Your task to perform on an android device: Do I have any events tomorrow? Image 0: 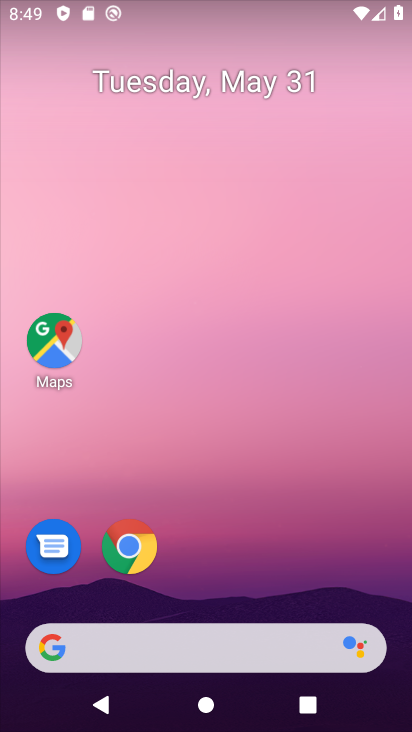
Step 0: drag from (383, 691) to (350, 142)
Your task to perform on an android device: Do I have any events tomorrow? Image 1: 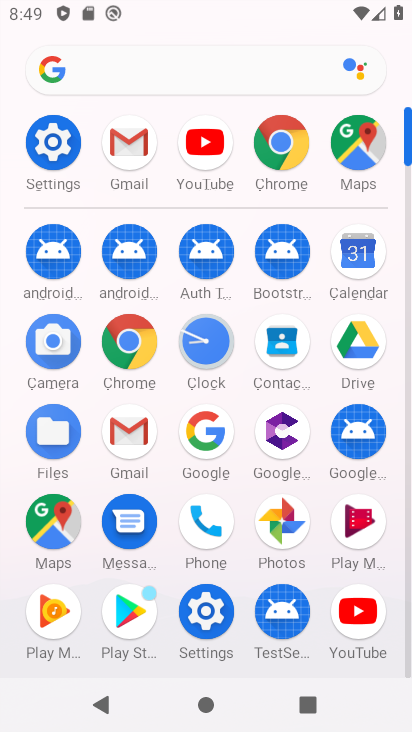
Step 1: click (357, 259)
Your task to perform on an android device: Do I have any events tomorrow? Image 2: 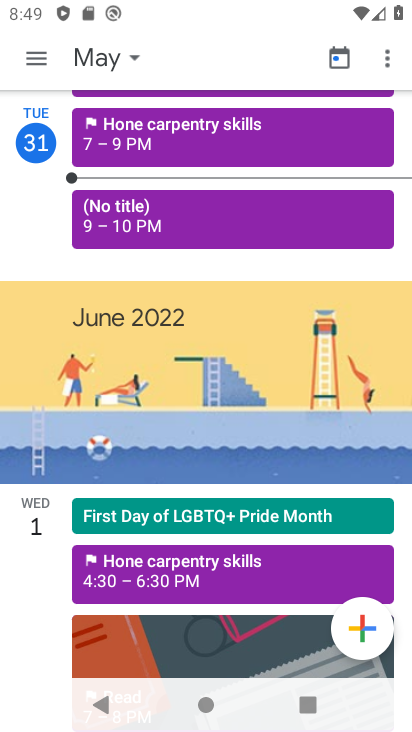
Step 2: click (33, 56)
Your task to perform on an android device: Do I have any events tomorrow? Image 3: 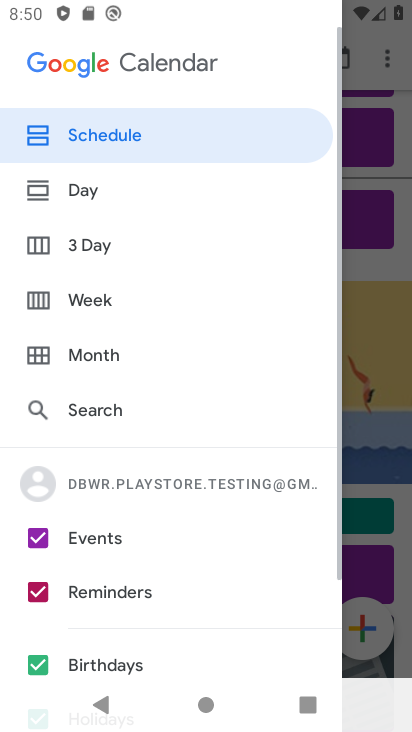
Step 3: click (35, 660)
Your task to perform on an android device: Do I have any events tomorrow? Image 4: 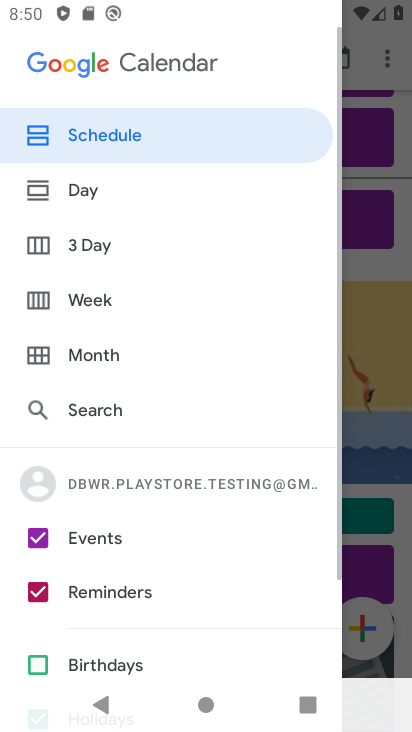
Step 4: click (45, 597)
Your task to perform on an android device: Do I have any events tomorrow? Image 5: 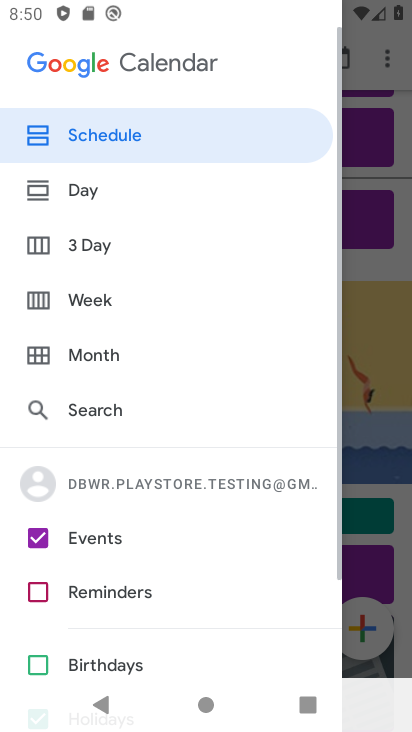
Step 5: drag from (228, 582) to (221, 383)
Your task to perform on an android device: Do I have any events tomorrow? Image 6: 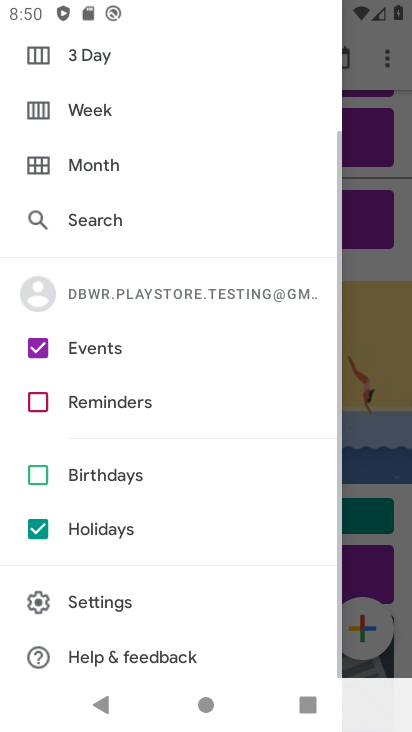
Step 6: click (43, 526)
Your task to perform on an android device: Do I have any events tomorrow? Image 7: 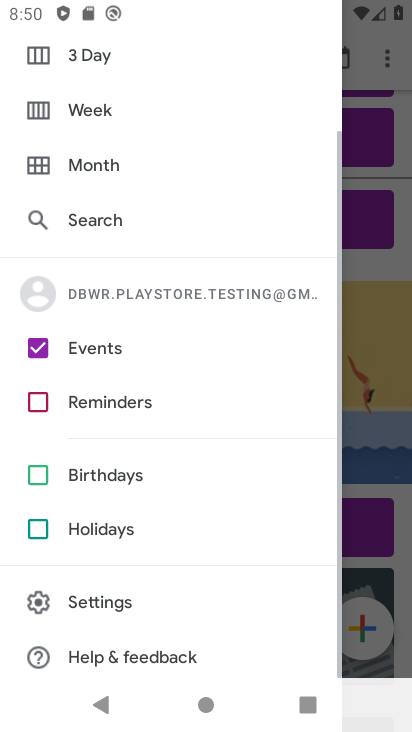
Step 7: drag from (193, 122) to (234, 546)
Your task to perform on an android device: Do I have any events tomorrow? Image 8: 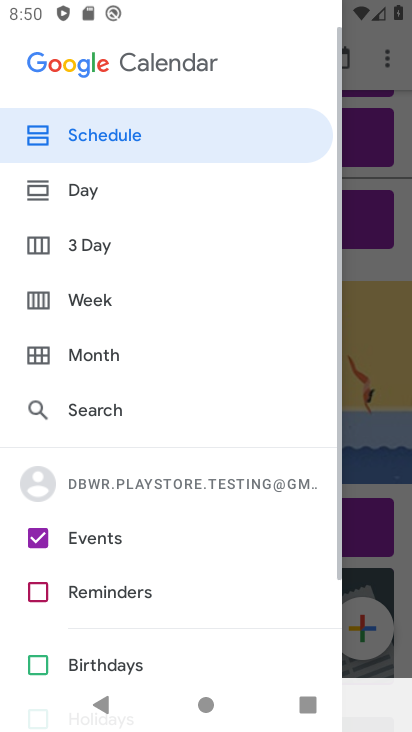
Step 8: click (65, 187)
Your task to perform on an android device: Do I have any events tomorrow? Image 9: 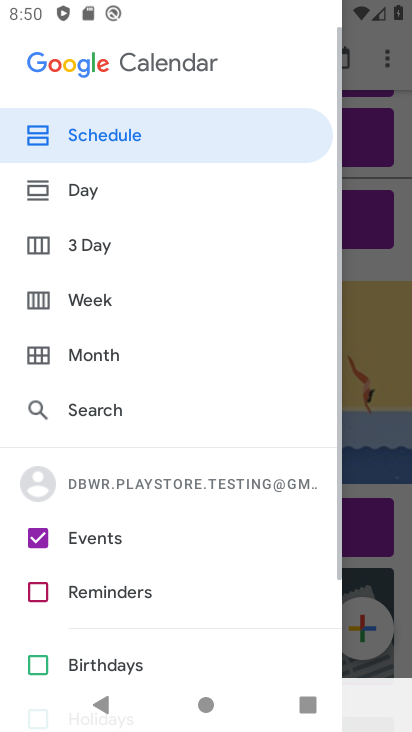
Step 9: click (385, 298)
Your task to perform on an android device: Do I have any events tomorrow? Image 10: 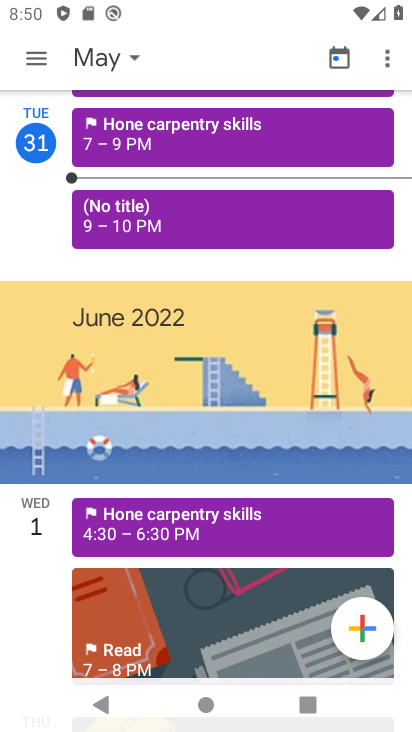
Step 10: click (128, 52)
Your task to perform on an android device: Do I have any events tomorrow? Image 11: 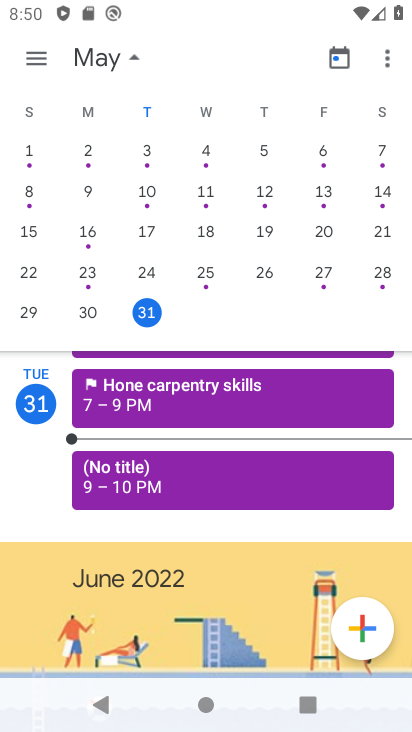
Step 11: drag from (399, 201) to (123, 198)
Your task to perform on an android device: Do I have any events tomorrow? Image 12: 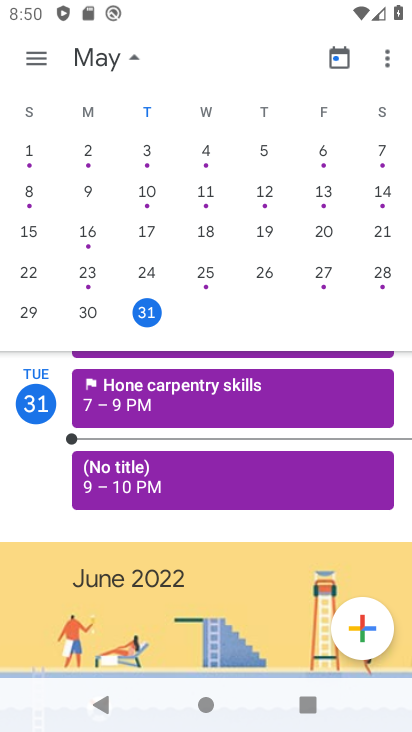
Step 12: drag from (390, 187) to (34, 157)
Your task to perform on an android device: Do I have any events tomorrow? Image 13: 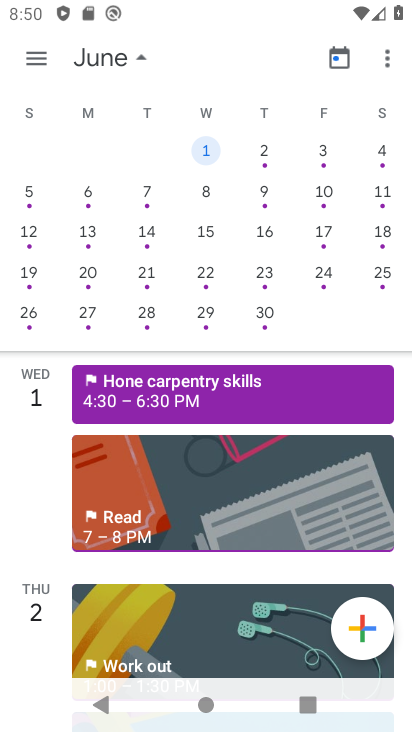
Step 13: click (200, 145)
Your task to perform on an android device: Do I have any events tomorrow? Image 14: 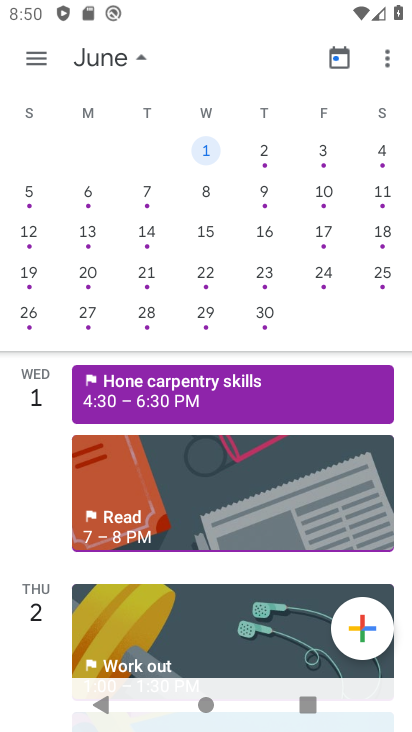
Step 14: click (205, 149)
Your task to perform on an android device: Do I have any events tomorrow? Image 15: 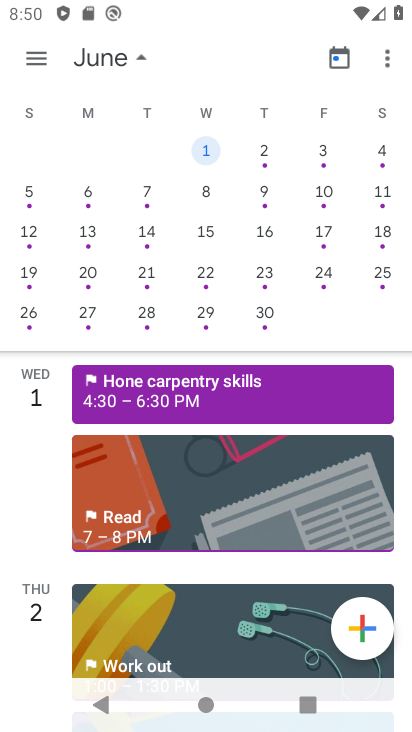
Step 15: click (30, 53)
Your task to perform on an android device: Do I have any events tomorrow? Image 16: 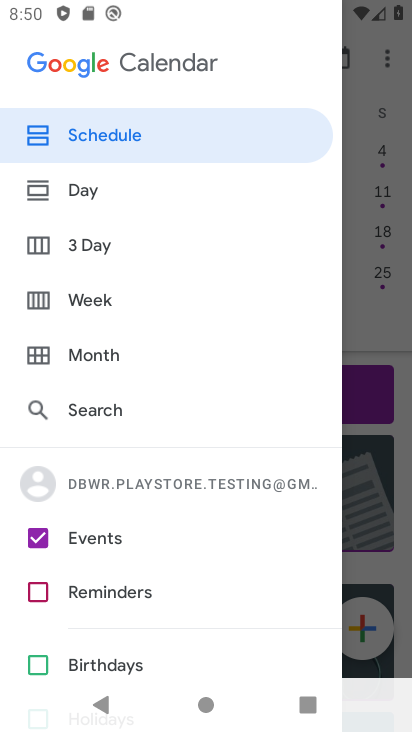
Step 16: click (83, 183)
Your task to perform on an android device: Do I have any events tomorrow? Image 17: 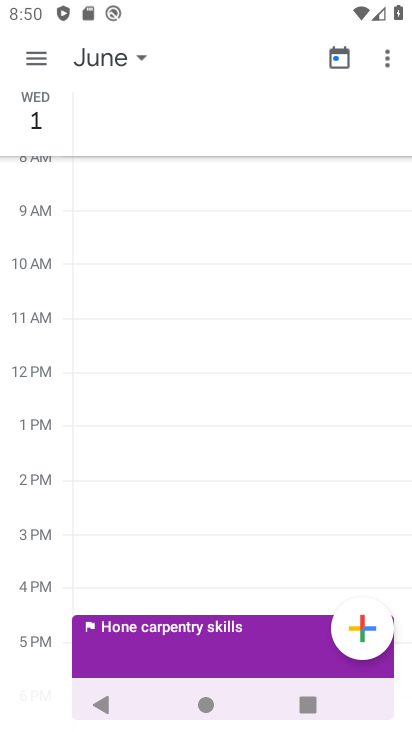
Step 17: click (31, 55)
Your task to perform on an android device: Do I have any events tomorrow? Image 18: 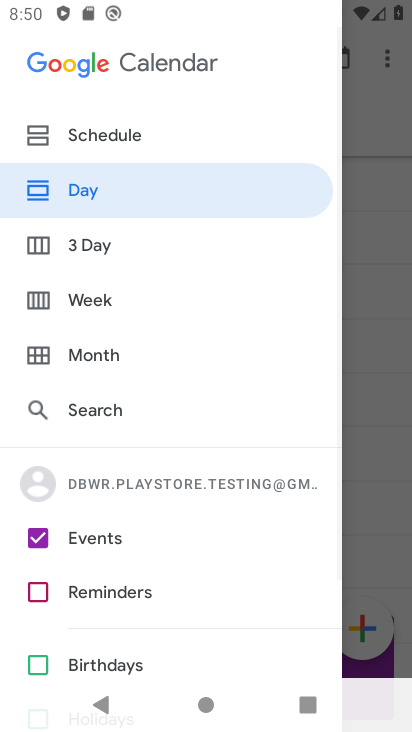
Step 18: click (108, 128)
Your task to perform on an android device: Do I have any events tomorrow? Image 19: 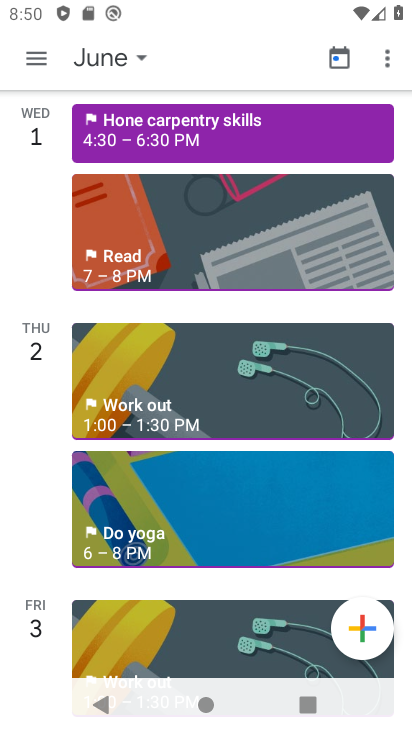
Step 19: task complete